Your task to perform on an android device: Open Maps and search for coffee Image 0: 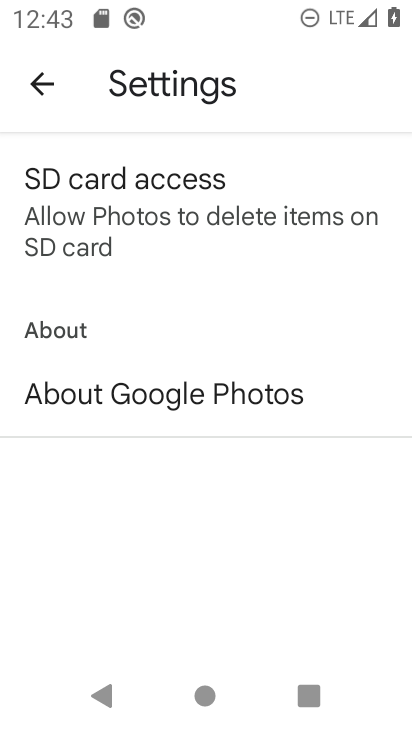
Step 0: press home button
Your task to perform on an android device: Open Maps and search for coffee Image 1: 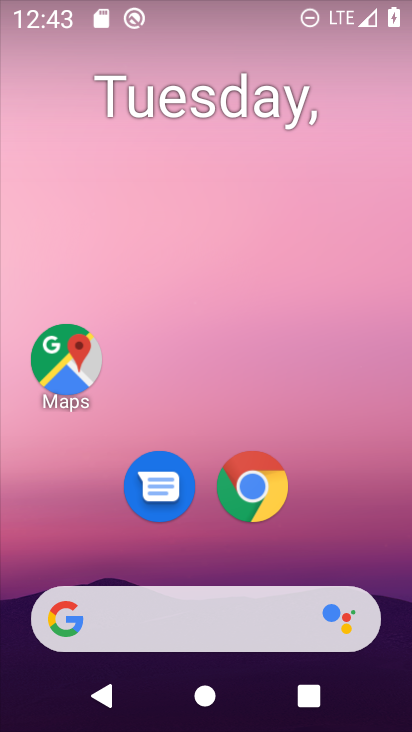
Step 1: drag from (212, 525) to (219, 214)
Your task to perform on an android device: Open Maps and search for coffee Image 2: 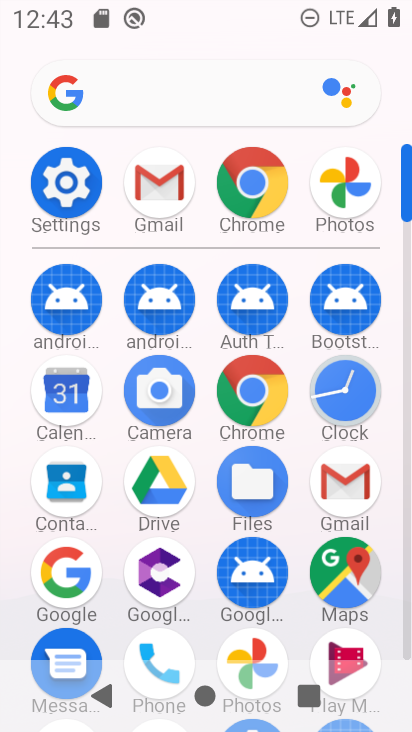
Step 2: click (326, 565)
Your task to perform on an android device: Open Maps and search for coffee Image 3: 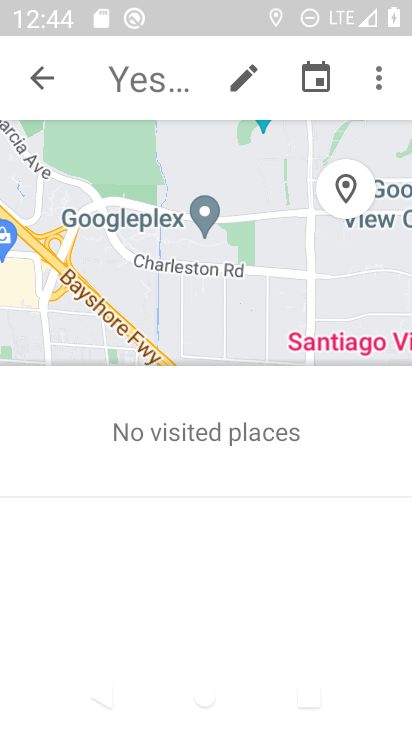
Step 3: press back button
Your task to perform on an android device: Open Maps and search for coffee Image 4: 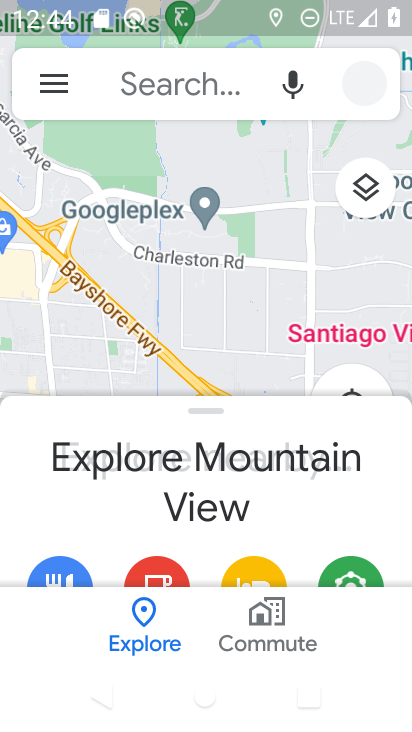
Step 4: click (196, 101)
Your task to perform on an android device: Open Maps and search for coffee Image 5: 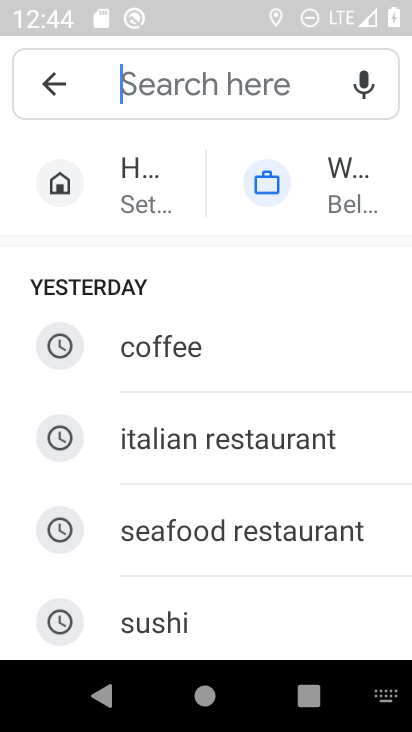
Step 5: click (284, 355)
Your task to perform on an android device: Open Maps and search for coffee Image 6: 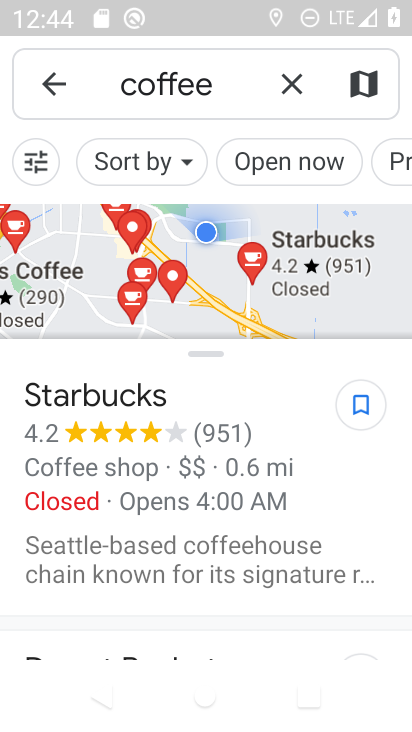
Step 6: task complete